Your task to perform on an android device: Go to accessibility settings Image 0: 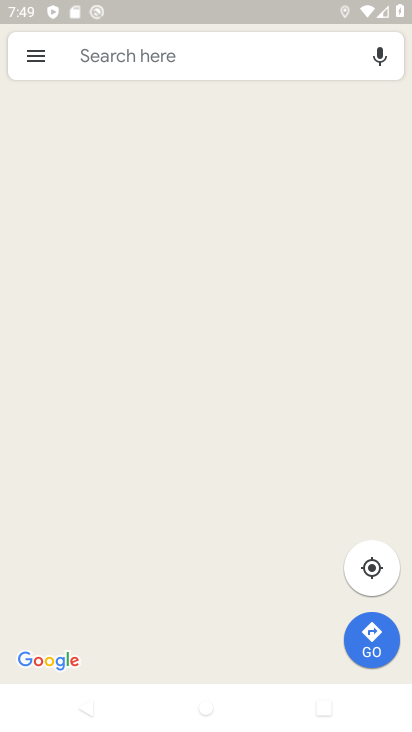
Step 0: click (292, 81)
Your task to perform on an android device: Go to accessibility settings Image 1: 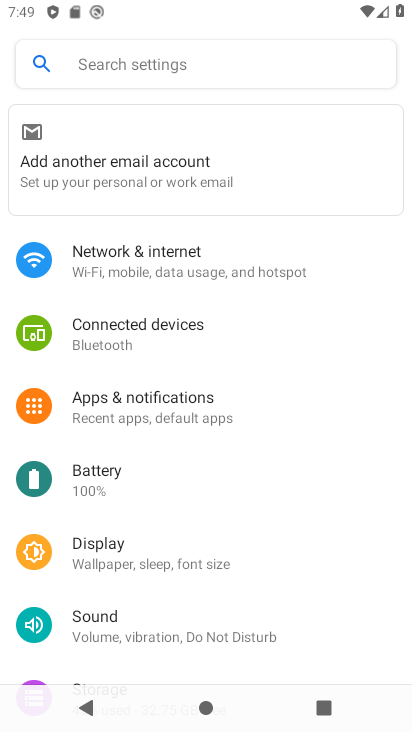
Step 1: drag from (138, 557) to (204, 193)
Your task to perform on an android device: Go to accessibility settings Image 2: 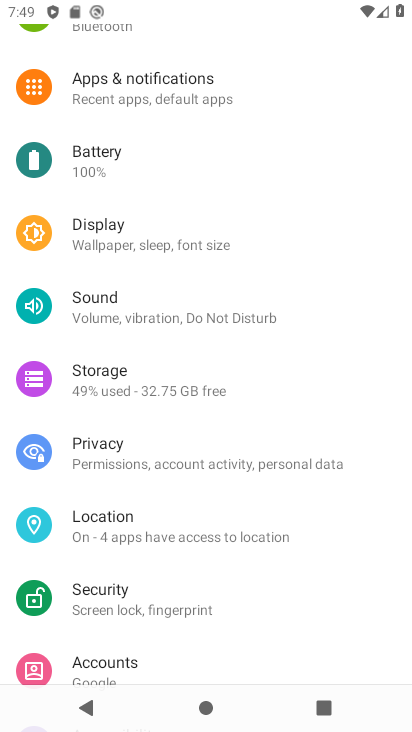
Step 2: drag from (103, 634) to (189, 166)
Your task to perform on an android device: Go to accessibility settings Image 3: 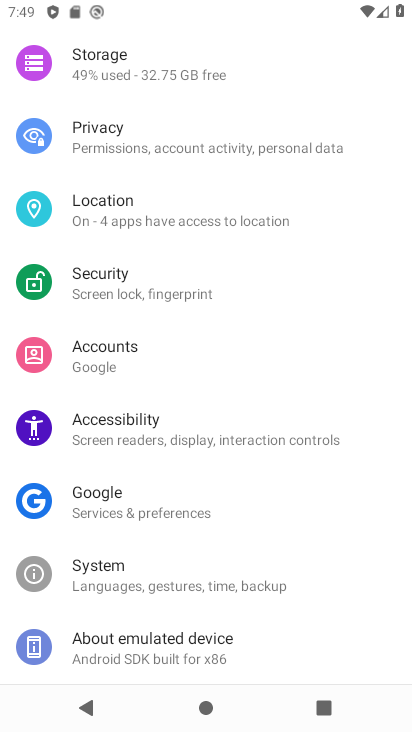
Step 3: click (133, 443)
Your task to perform on an android device: Go to accessibility settings Image 4: 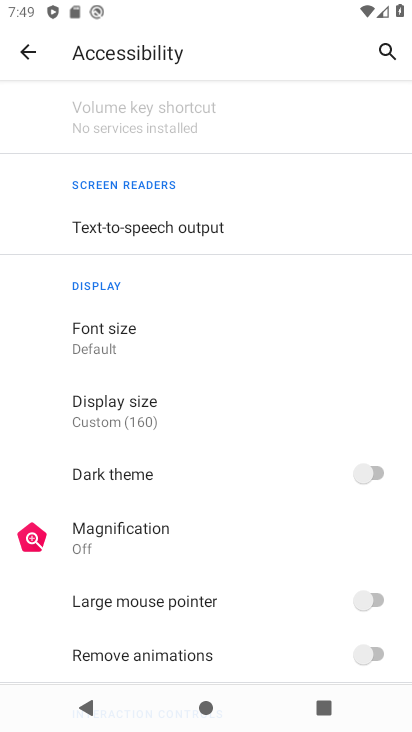
Step 4: task complete